Your task to perform on an android device: change your default location settings in chrome Image 0: 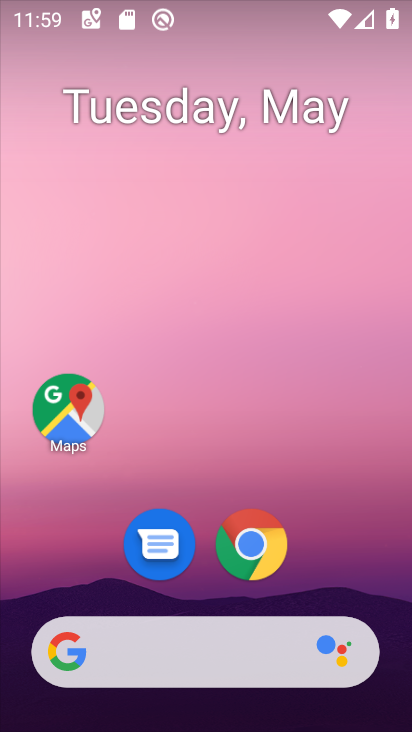
Step 0: drag from (246, 465) to (230, 223)
Your task to perform on an android device: change your default location settings in chrome Image 1: 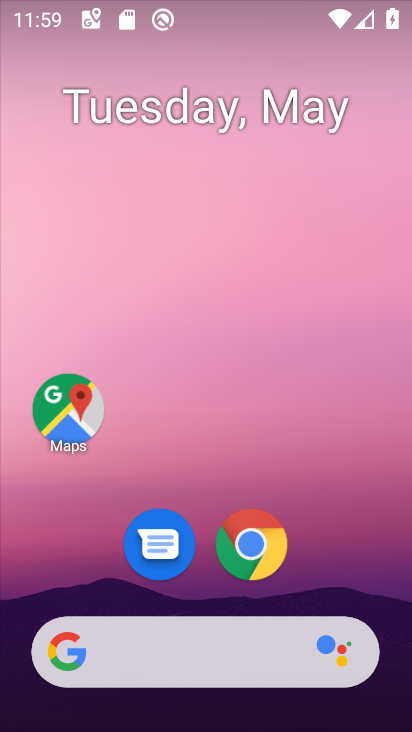
Step 1: drag from (233, 471) to (249, 123)
Your task to perform on an android device: change your default location settings in chrome Image 2: 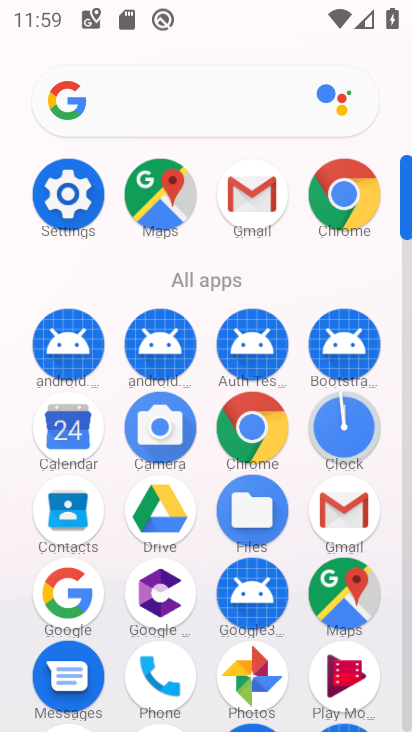
Step 2: click (262, 438)
Your task to perform on an android device: change your default location settings in chrome Image 3: 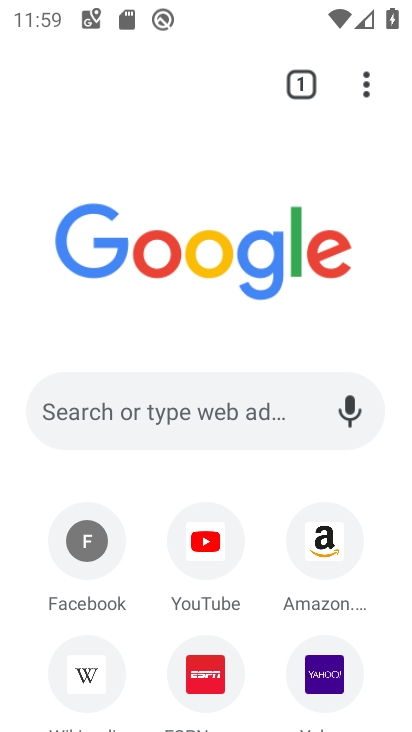
Step 3: click (359, 91)
Your task to perform on an android device: change your default location settings in chrome Image 4: 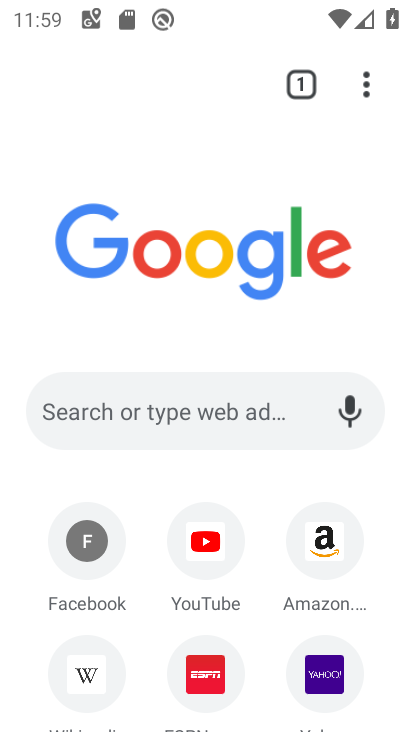
Step 4: click (365, 98)
Your task to perform on an android device: change your default location settings in chrome Image 5: 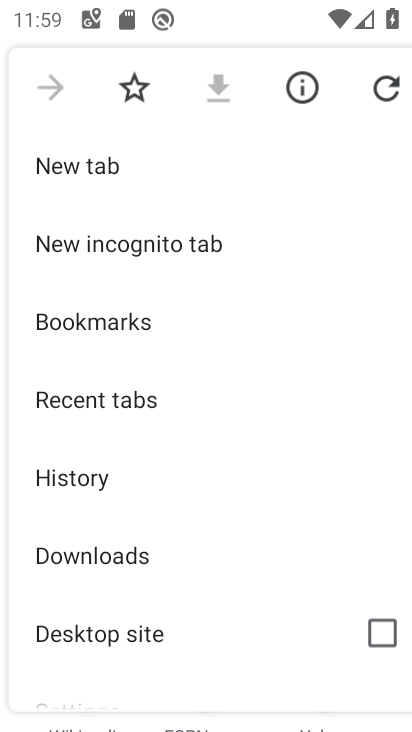
Step 5: drag from (144, 508) to (141, 174)
Your task to perform on an android device: change your default location settings in chrome Image 6: 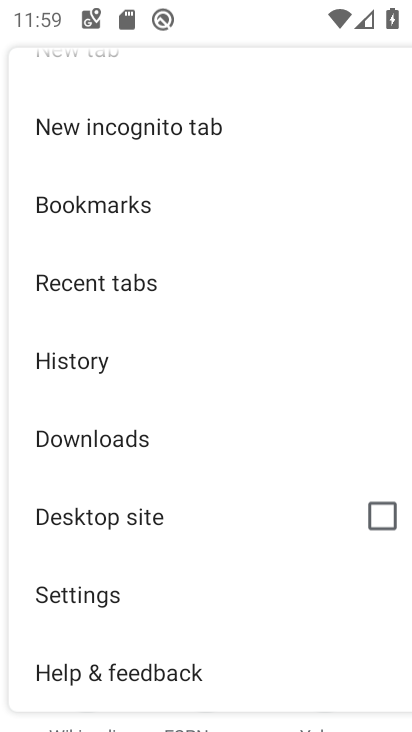
Step 6: click (90, 586)
Your task to perform on an android device: change your default location settings in chrome Image 7: 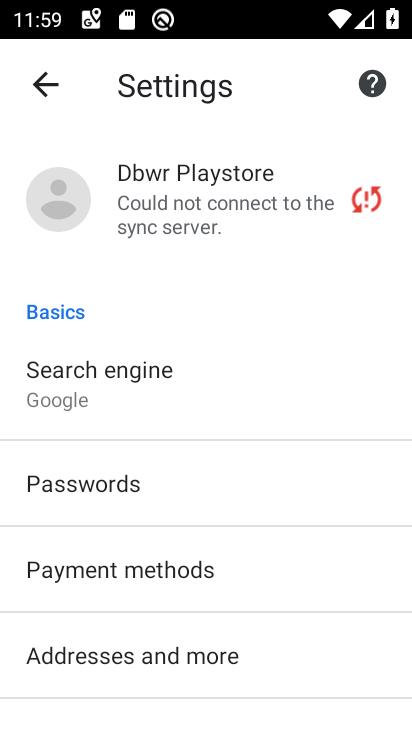
Step 7: drag from (153, 522) to (133, 232)
Your task to perform on an android device: change your default location settings in chrome Image 8: 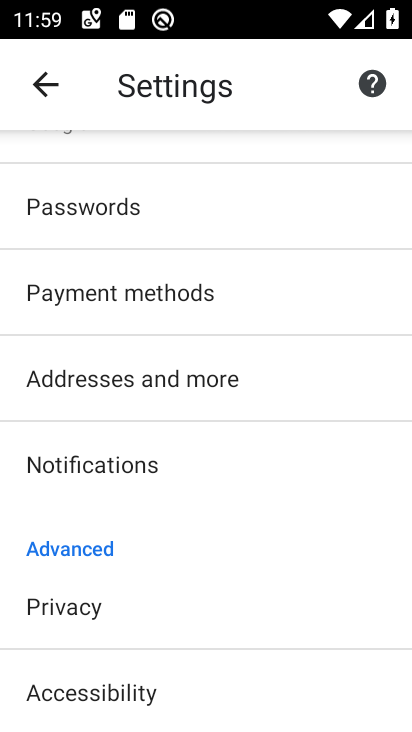
Step 8: drag from (170, 596) to (153, 317)
Your task to perform on an android device: change your default location settings in chrome Image 9: 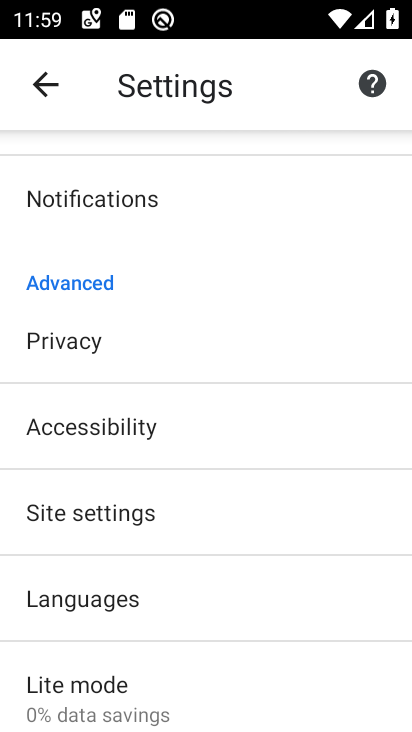
Step 9: click (111, 527)
Your task to perform on an android device: change your default location settings in chrome Image 10: 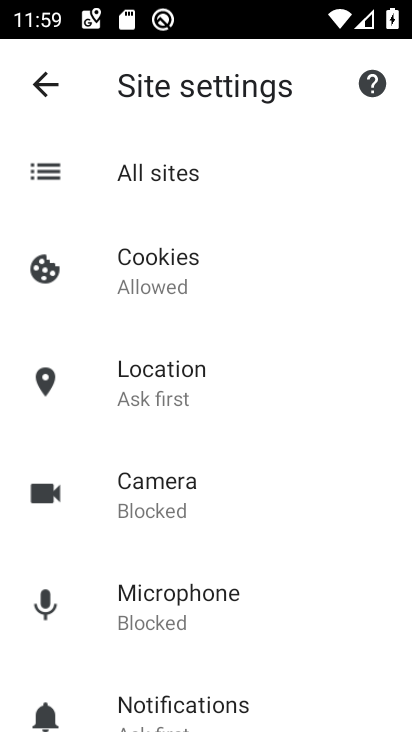
Step 10: click (170, 398)
Your task to perform on an android device: change your default location settings in chrome Image 11: 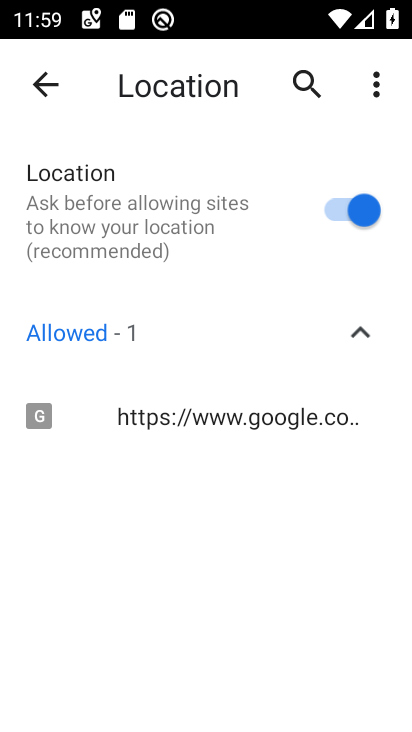
Step 11: click (337, 224)
Your task to perform on an android device: change your default location settings in chrome Image 12: 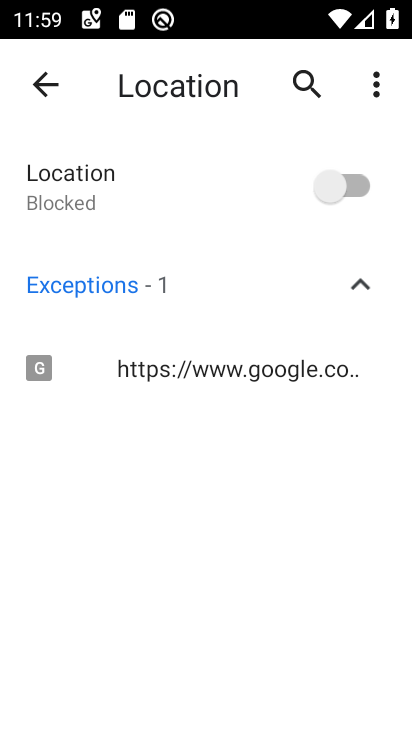
Step 12: task complete